Your task to perform on an android device: Open CNN.com Image 0: 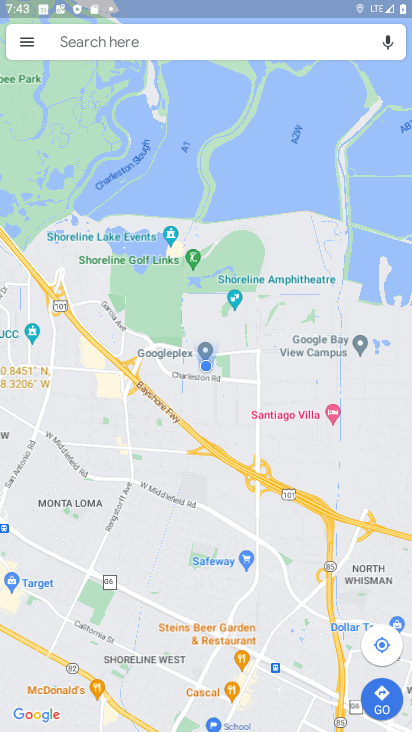
Step 0: press home button
Your task to perform on an android device: Open CNN.com Image 1: 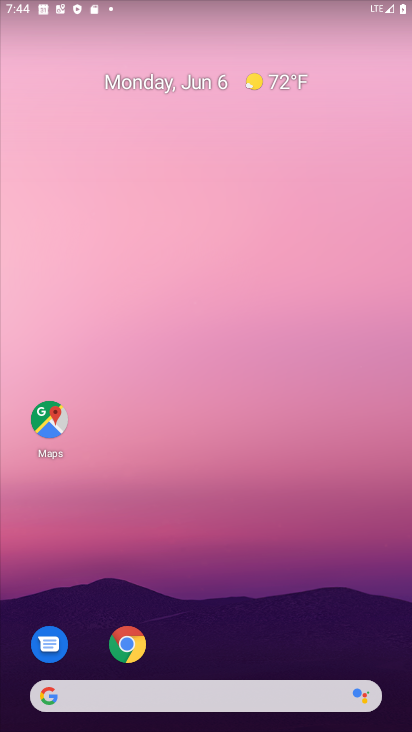
Step 1: drag from (271, 703) to (114, 118)
Your task to perform on an android device: Open CNN.com Image 2: 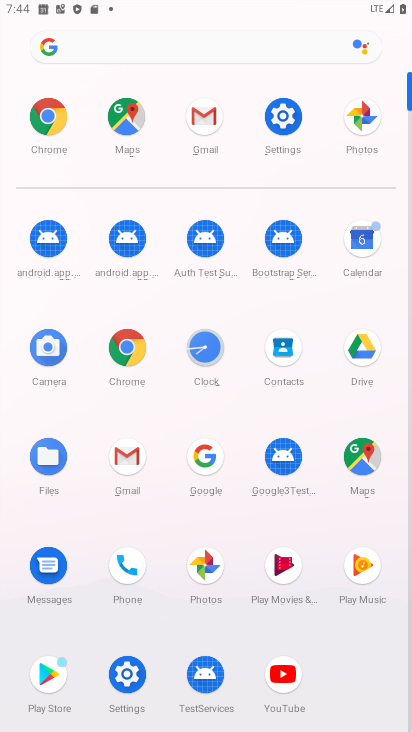
Step 2: click (139, 359)
Your task to perform on an android device: Open CNN.com Image 3: 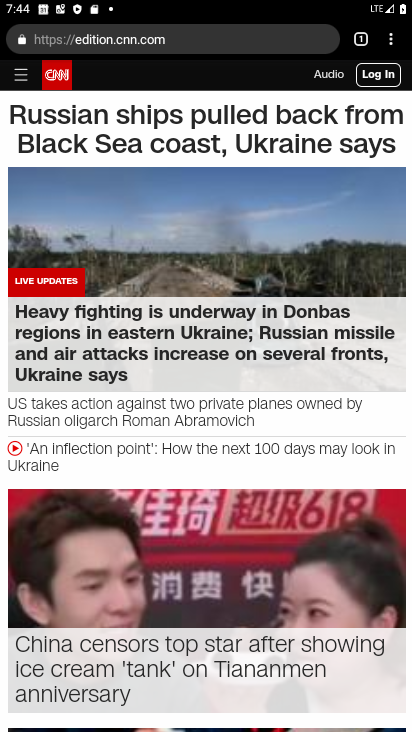
Step 3: click (212, 43)
Your task to perform on an android device: Open CNN.com Image 4: 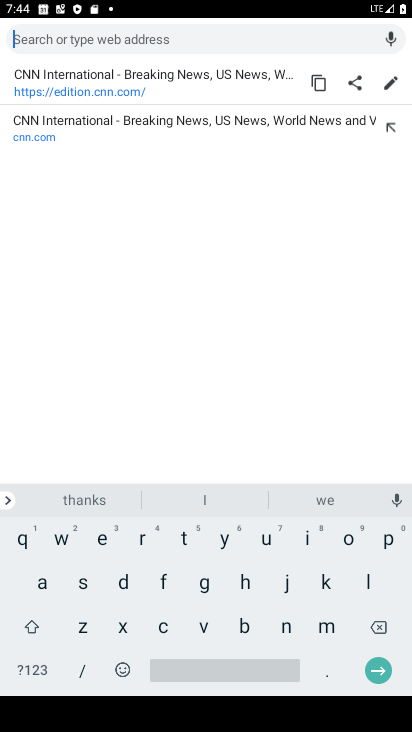
Step 4: click (75, 76)
Your task to perform on an android device: Open CNN.com Image 5: 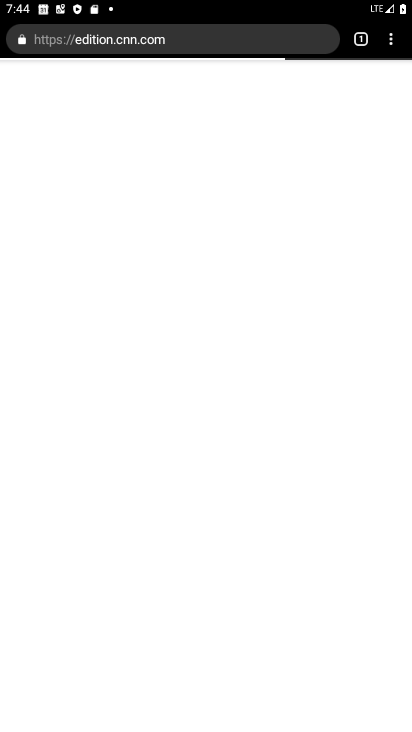
Step 5: task complete